Your task to perform on an android device: Open wifi settings Image 0: 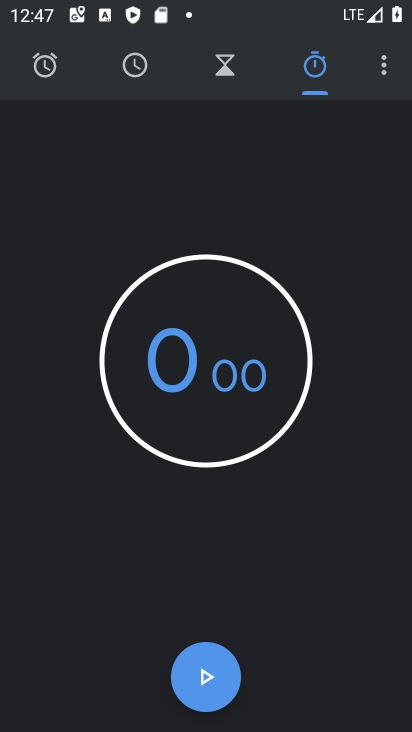
Step 0: drag from (204, 19) to (205, 428)
Your task to perform on an android device: Open wifi settings Image 1: 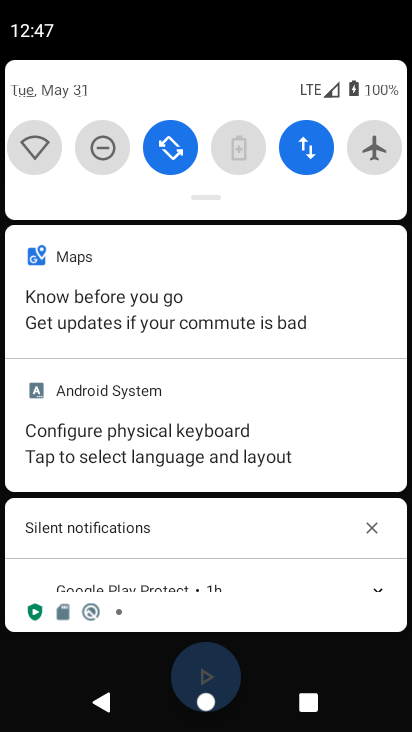
Step 1: click (42, 156)
Your task to perform on an android device: Open wifi settings Image 2: 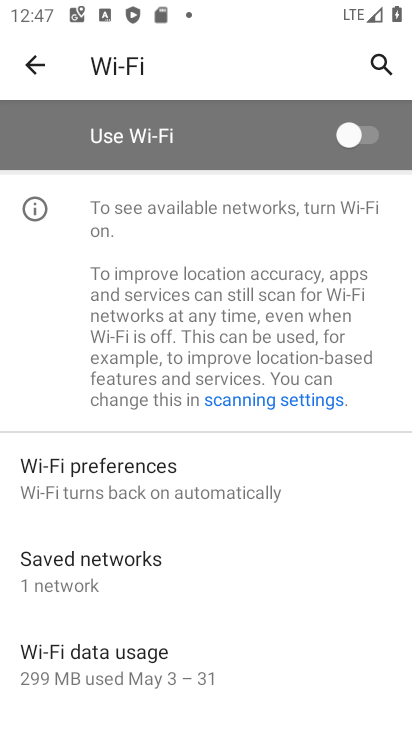
Step 2: task complete